Your task to perform on an android device: toggle improve location accuracy Image 0: 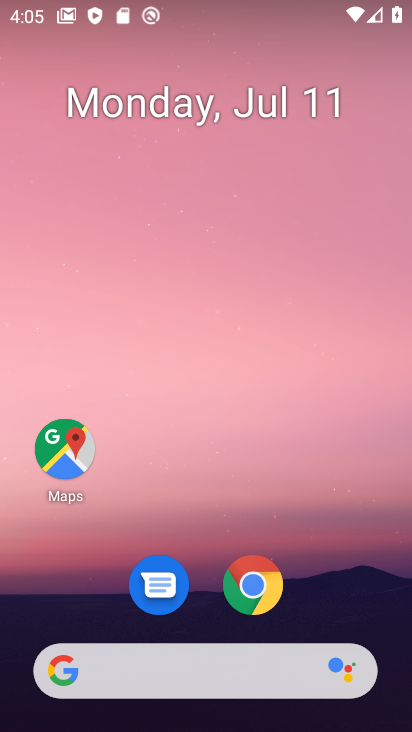
Step 0: drag from (287, 529) to (299, 16)
Your task to perform on an android device: toggle improve location accuracy Image 1: 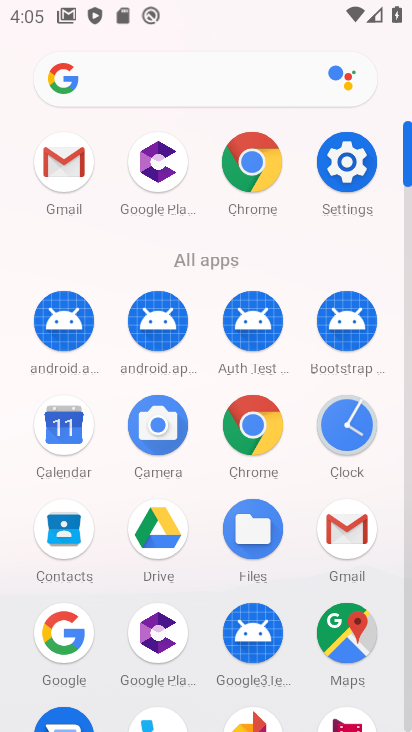
Step 1: click (340, 156)
Your task to perform on an android device: toggle improve location accuracy Image 2: 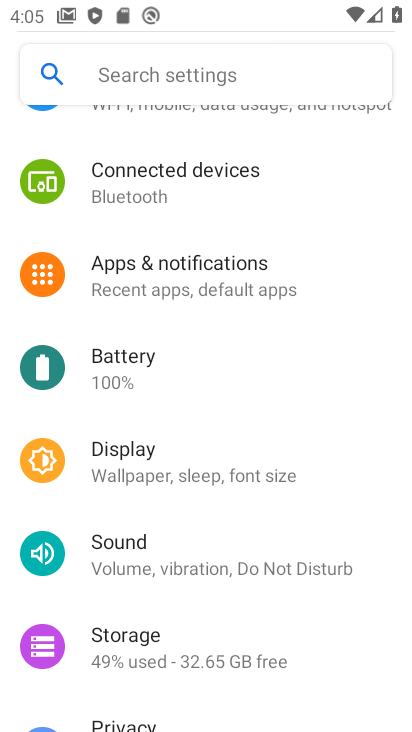
Step 2: drag from (179, 674) to (201, 317)
Your task to perform on an android device: toggle improve location accuracy Image 3: 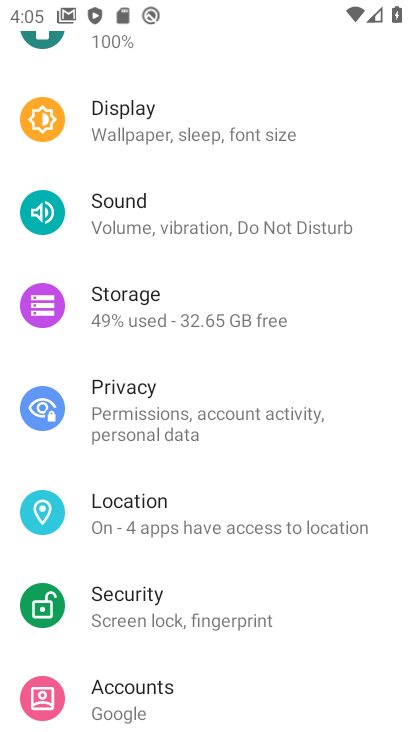
Step 3: click (221, 526)
Your task to perform on an android device: toggle improve location accuracy Image 4: 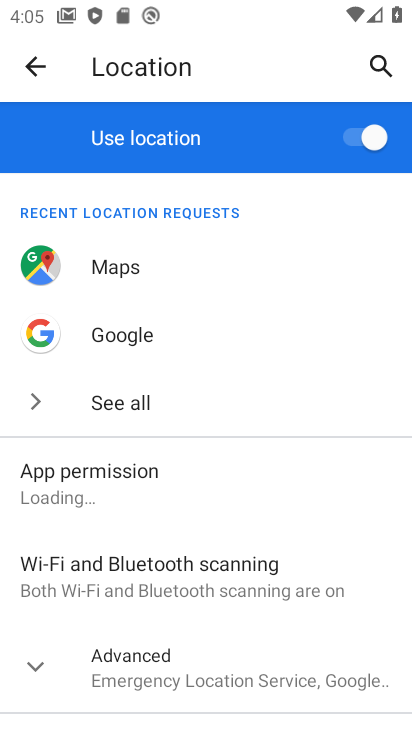
Step 4: click (30, 667)
Your task to perform on an android device: toggle improve location accuracy Image 5: 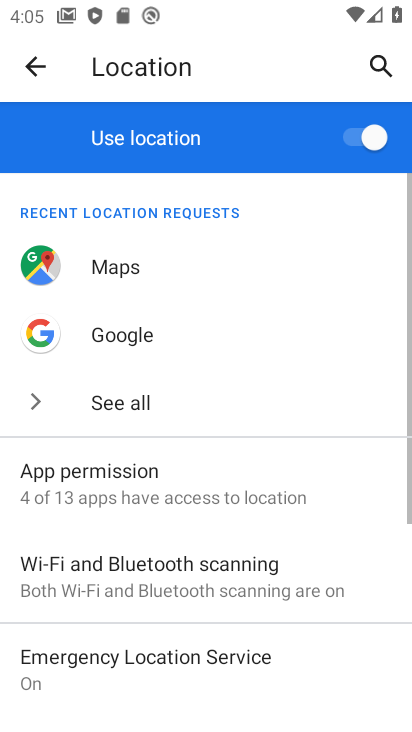
Step 5: drag from (218, 514) to (351, 84)
Your task to perform on an android device: toggle improve location accuracy Image 6: 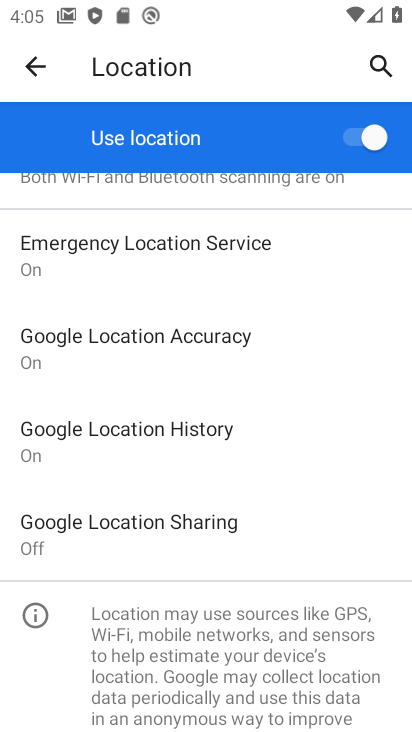
Step 6: click (214, 347)
Your task to perform on an android device: toggle improve location accuracy Image 7: 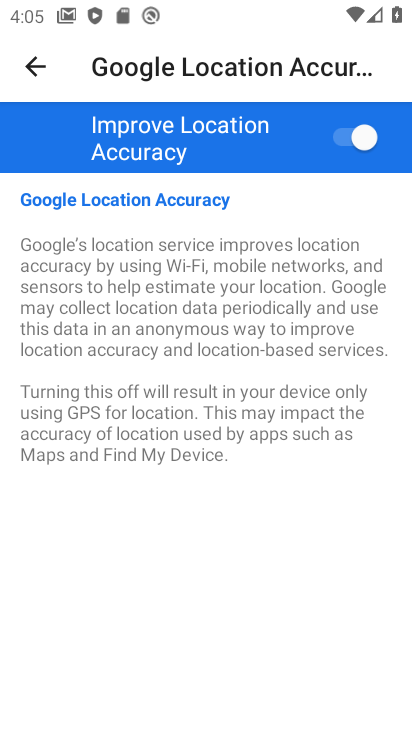
Step 7: click (343, 137)
Your task to perform on an android device: toggle improve location accuracy Image 8: 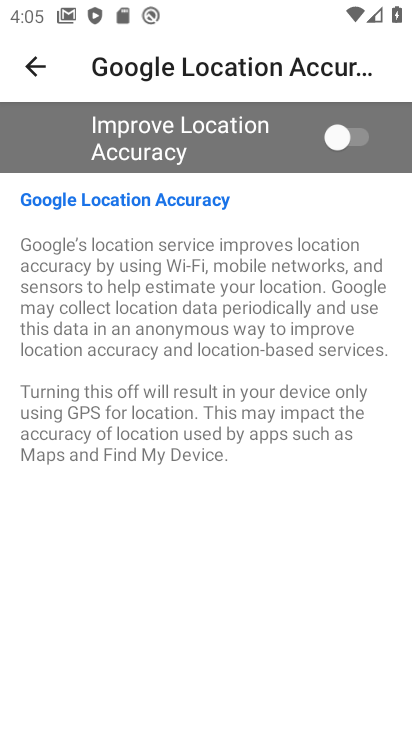
Step 8: task complete